Your task to perform on an android device: Go to Wikipedia Image 0: 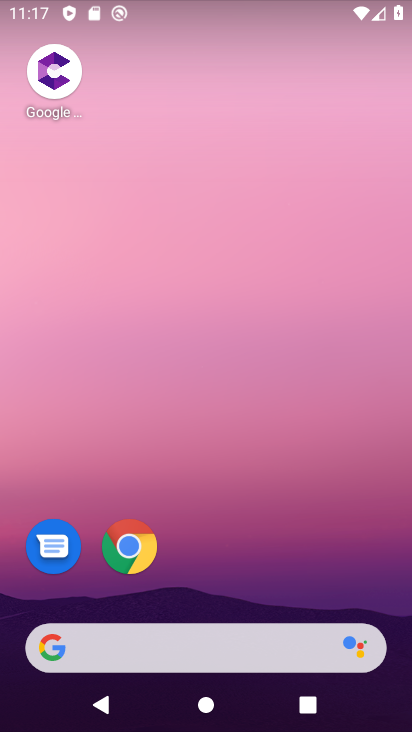
Step 0: click (140, 555)
Your task to perform on an android device: Go to Wikipedia Image 1: 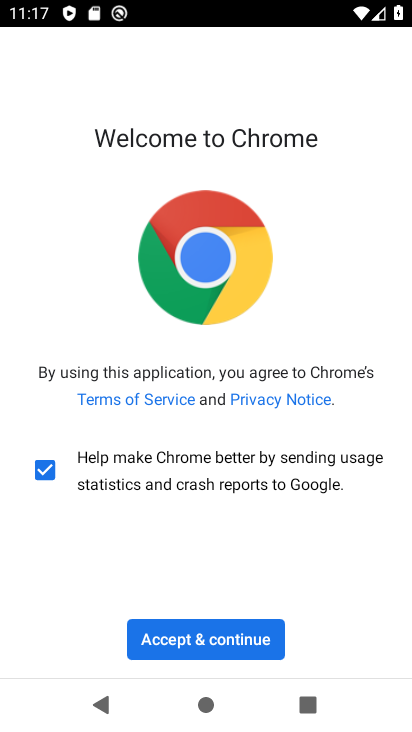
Step 1: click (217, 629)
Your task to perform on an android device: Go to Wikipedia Image 2: 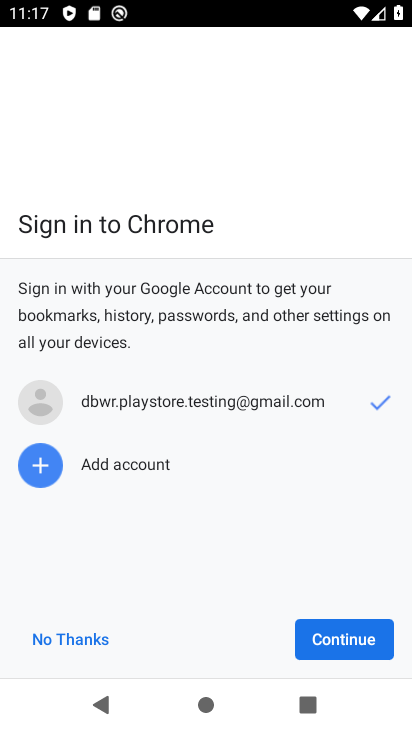
Step 2: click (369, 634)
Your task to perform on an android device: Go to Wikipedia Image 3: 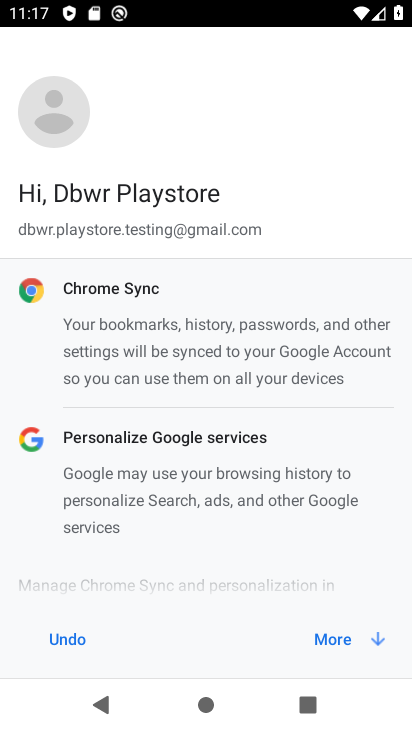
Step 3: click (327, 640)
Your task to perform on an android device: Go to Wikipedia Image 4: 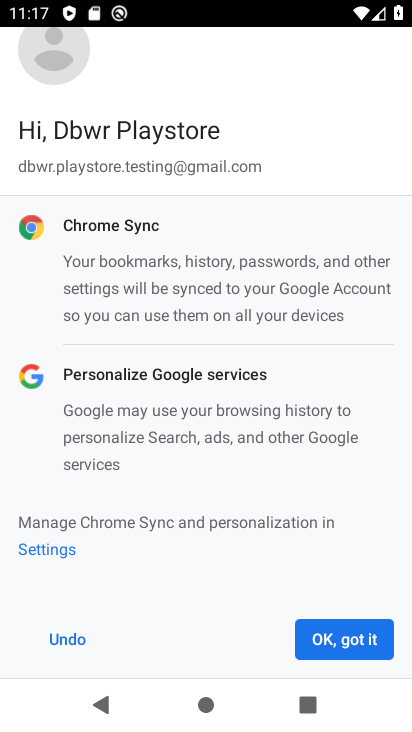
Step 4: click (327, 640)
Your task to perform on an android device: Go to Wikipedia Image 5: 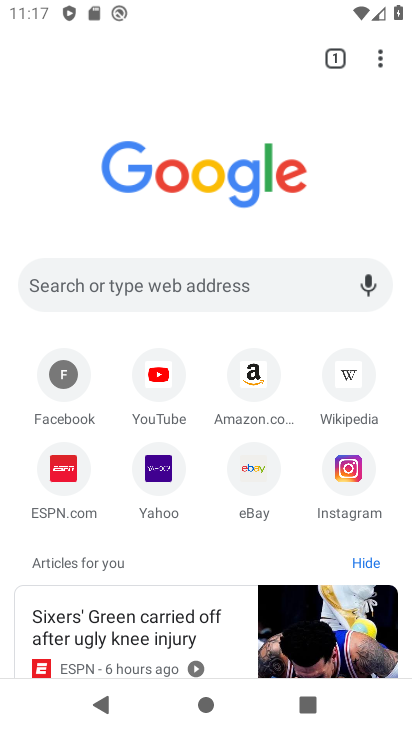
Step 5: click (349, 390)
Your task to perform on an android device: Go to Wikipedia Image 6: 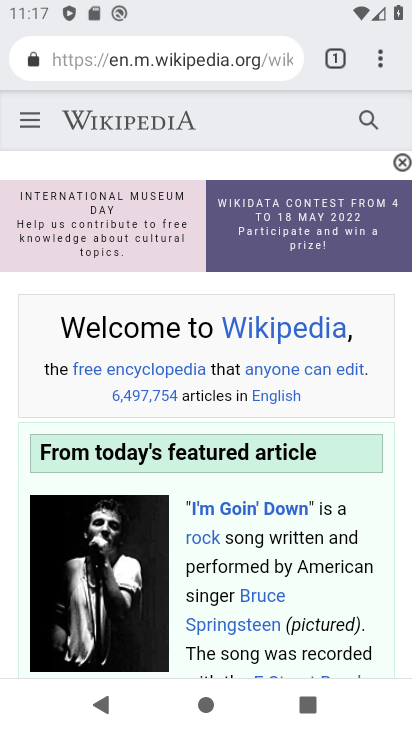
Step 6: task complete